Your task to perform on an android device: turn on airplane mode Image 0: 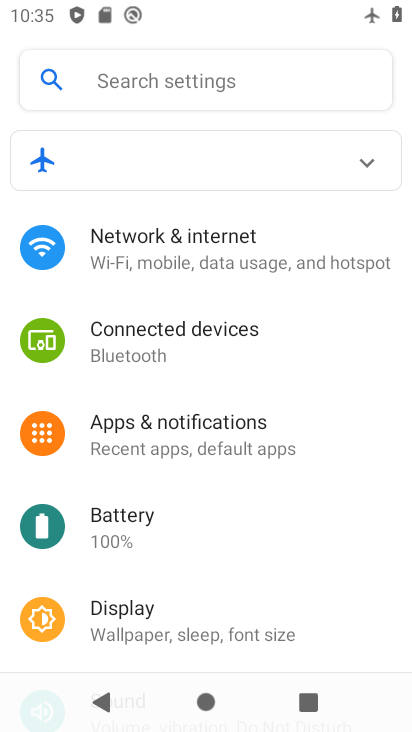
Step 0: click (215, 265)
Your task to perform on an android device: turn on airplane mode Image 1: 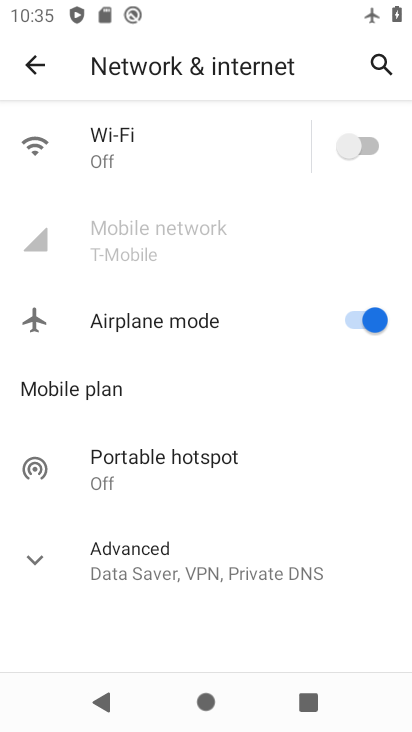
Step 1: task complete